Your task to perform on an android device: Show me recent news Image 0: 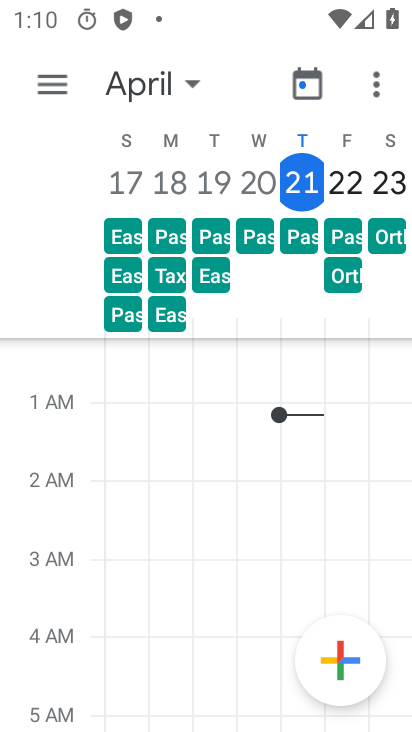
Step 0: press home button
Your task to perform on an android device: Show me recent news Image 1: 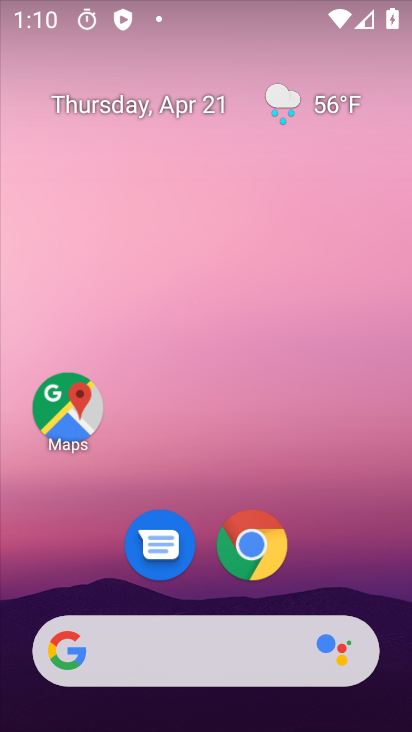
Step 1: task complete